Your task to perform on an android device: open a new tab in the chrome app Image 0: 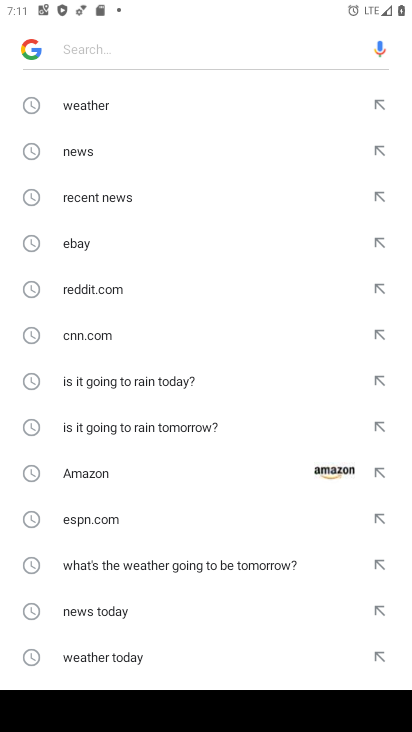
Step 0: press home button
Your task to perform on an android device: open a new tab in the chrome app Image 1: 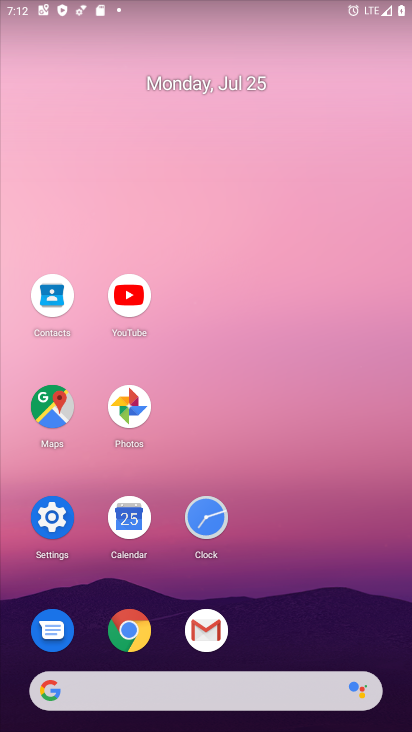
Step 1: click (126, 637)
Your task to perform on an android device: open a new tab in the chrome app Image 2: 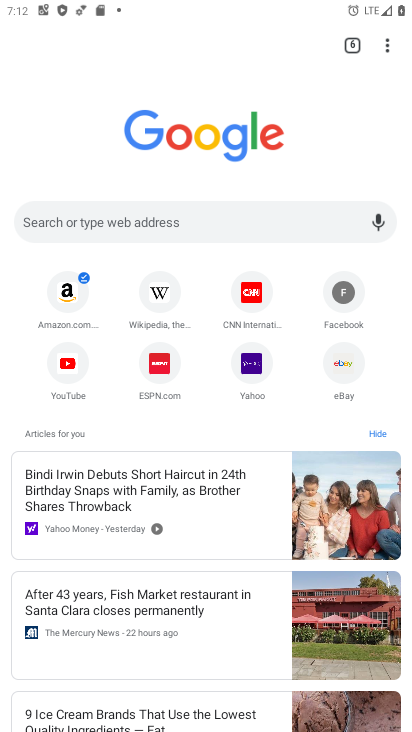
Step 2: click (387, 43)
Your task to perform on an android device: open a new tab in the chrome app Image 3: 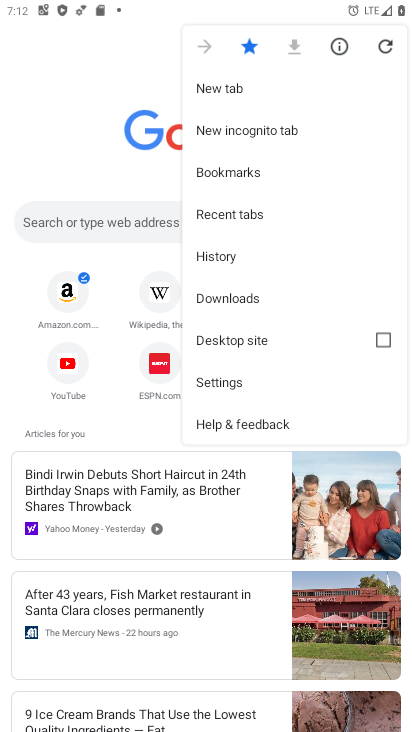
Step 3: click (223, 85)
Your task to perform on an android device: open a new tab in the chrome app Image 4: 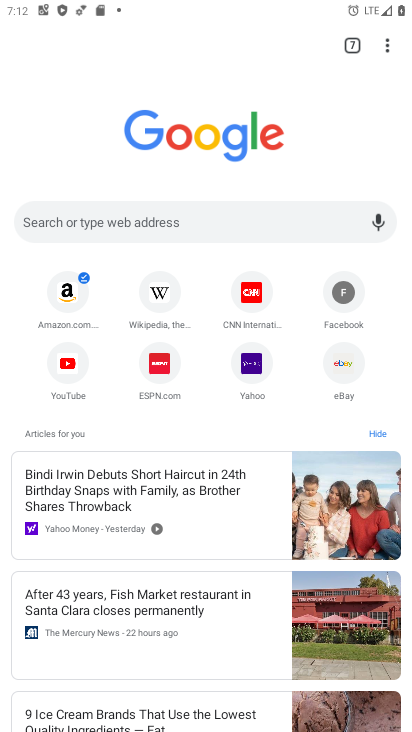
Step 4: task complete